Your task to perform on an android device: Go to notification settings Image 0: 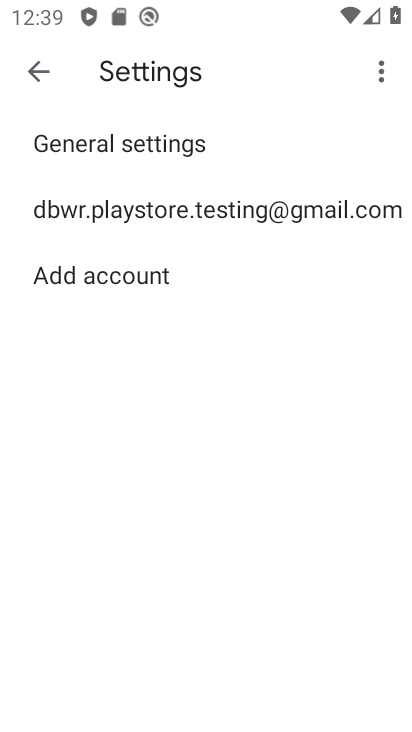
Step 0: task complete